Your task to perform on an android device: turn off wifi Image 0: 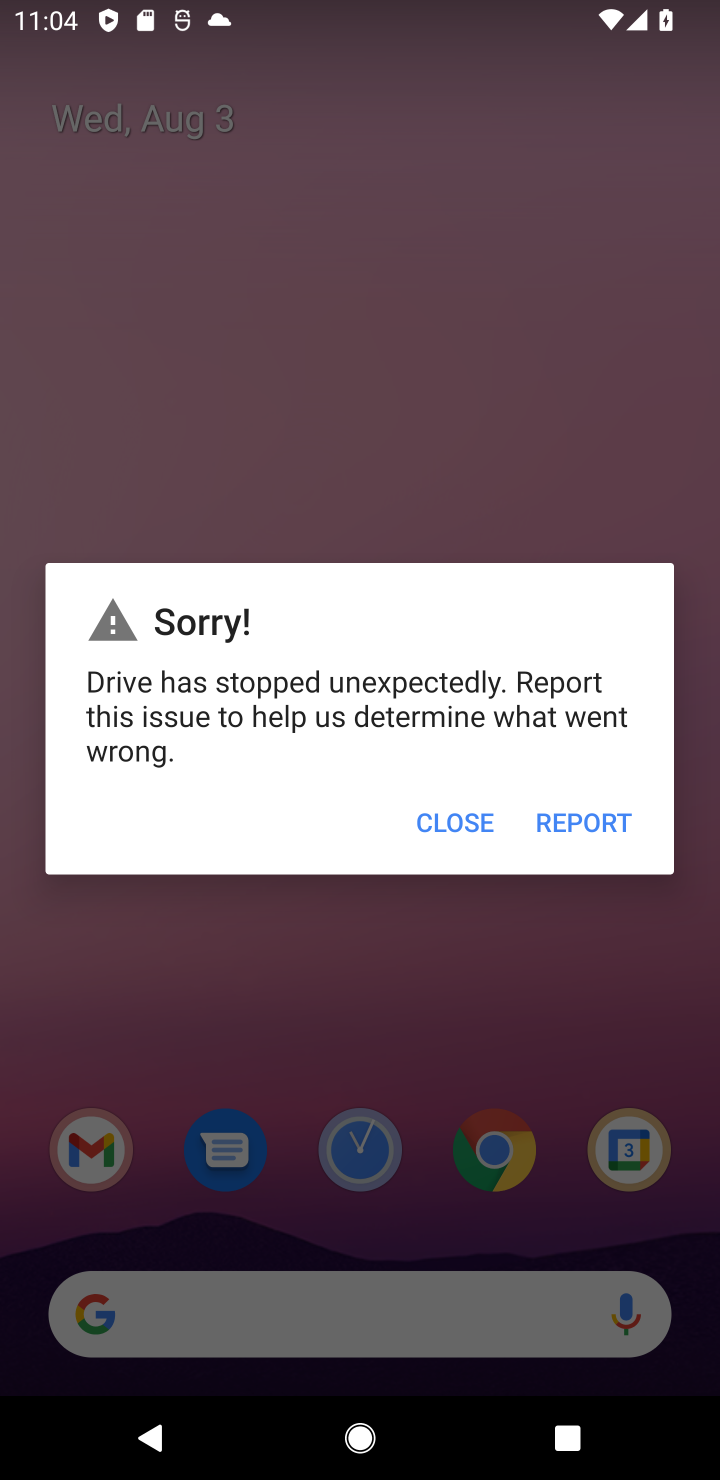
Step 0: press home button
Your task to perform on an android device: turn off wifi Image 1: 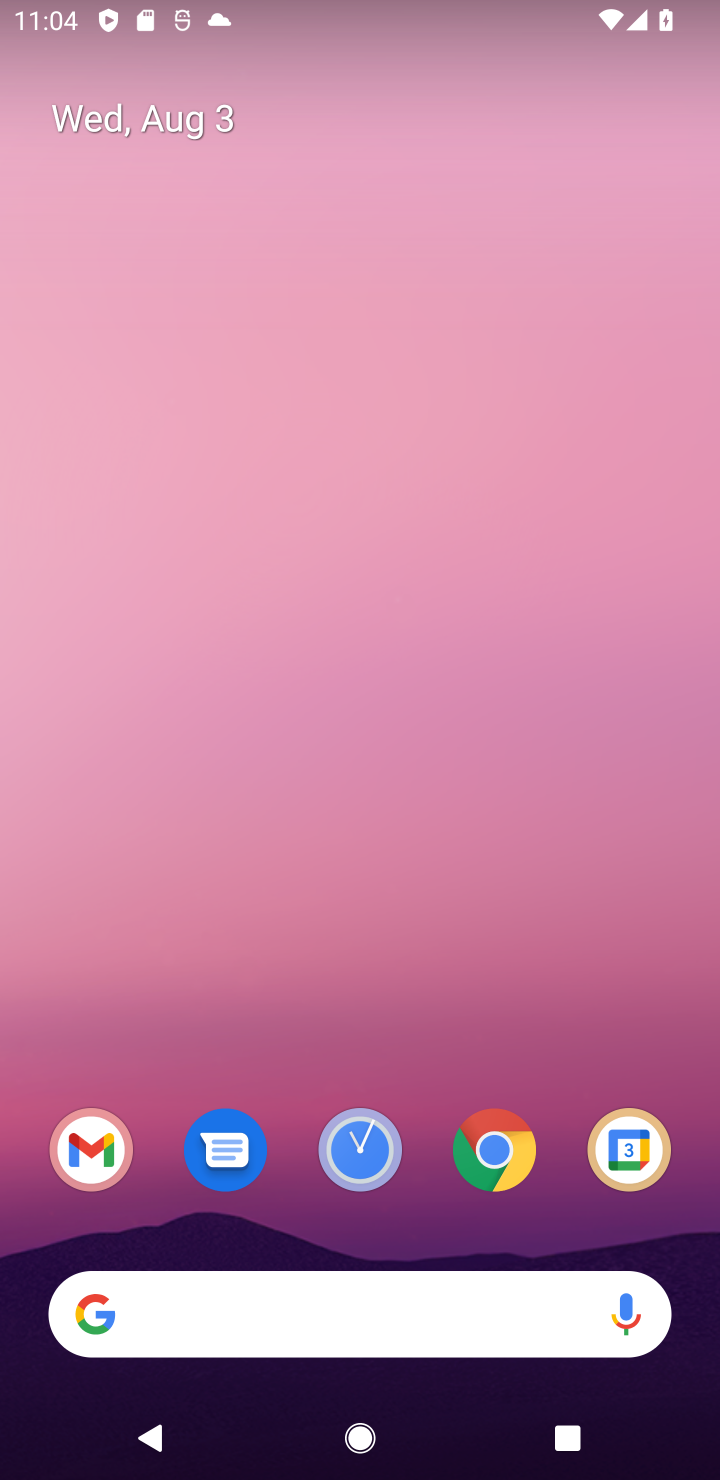
Step 1: drag from (570, 1061) to (599, 294)
Your task to perform on an android device: turn off wifi Image 2: 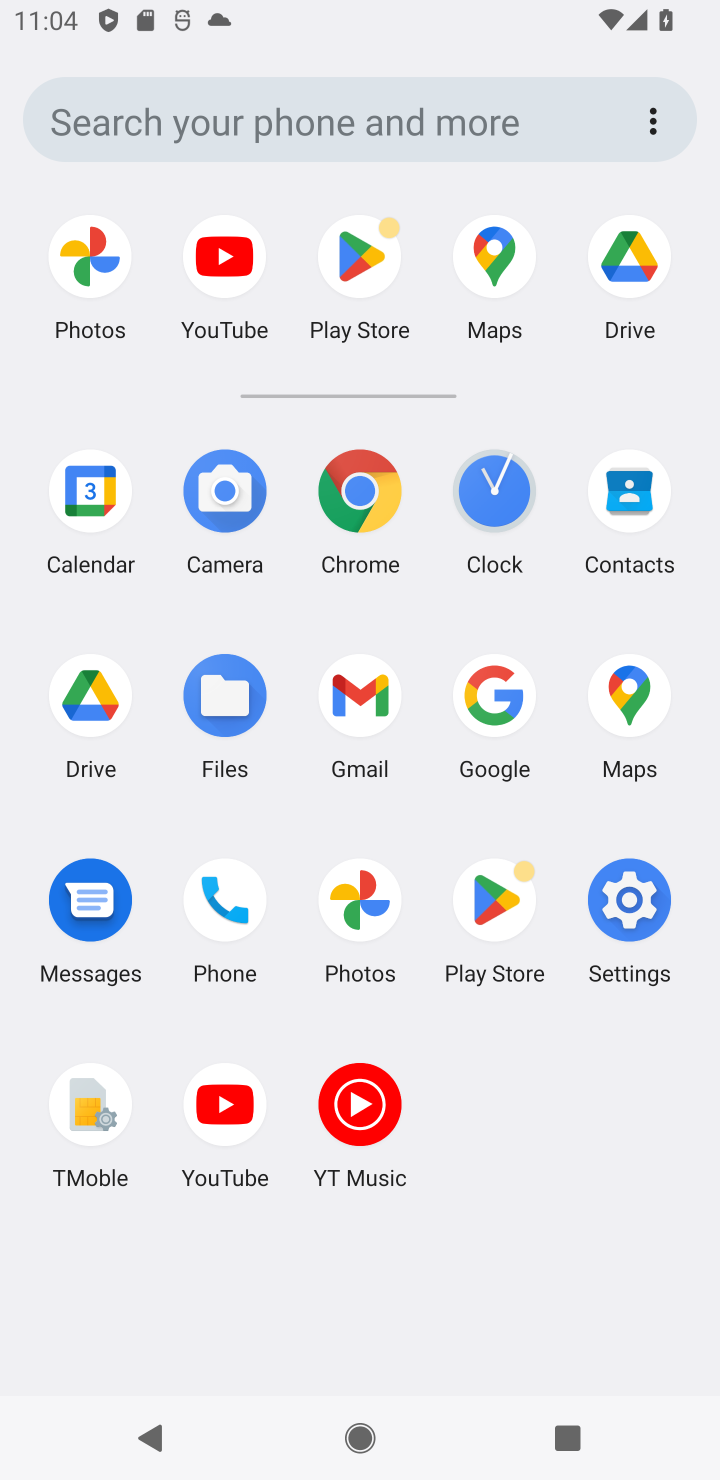
Step 2: click (632, 914)
Your task to perform on an android device: turn off wifi Image 3: 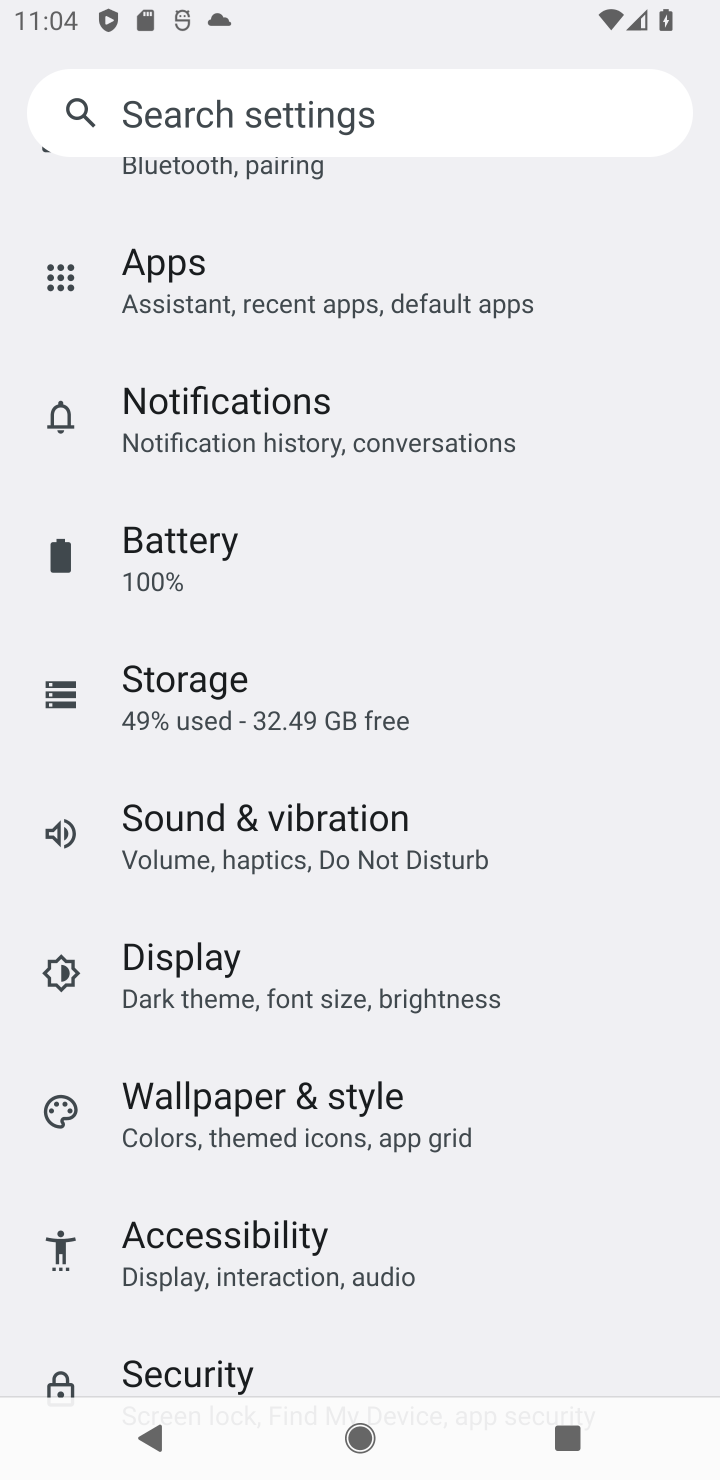
Step 3: drag from (571, 1195) to (593, 892)
Your task to perform on an android device: turn off wifi Image 4: 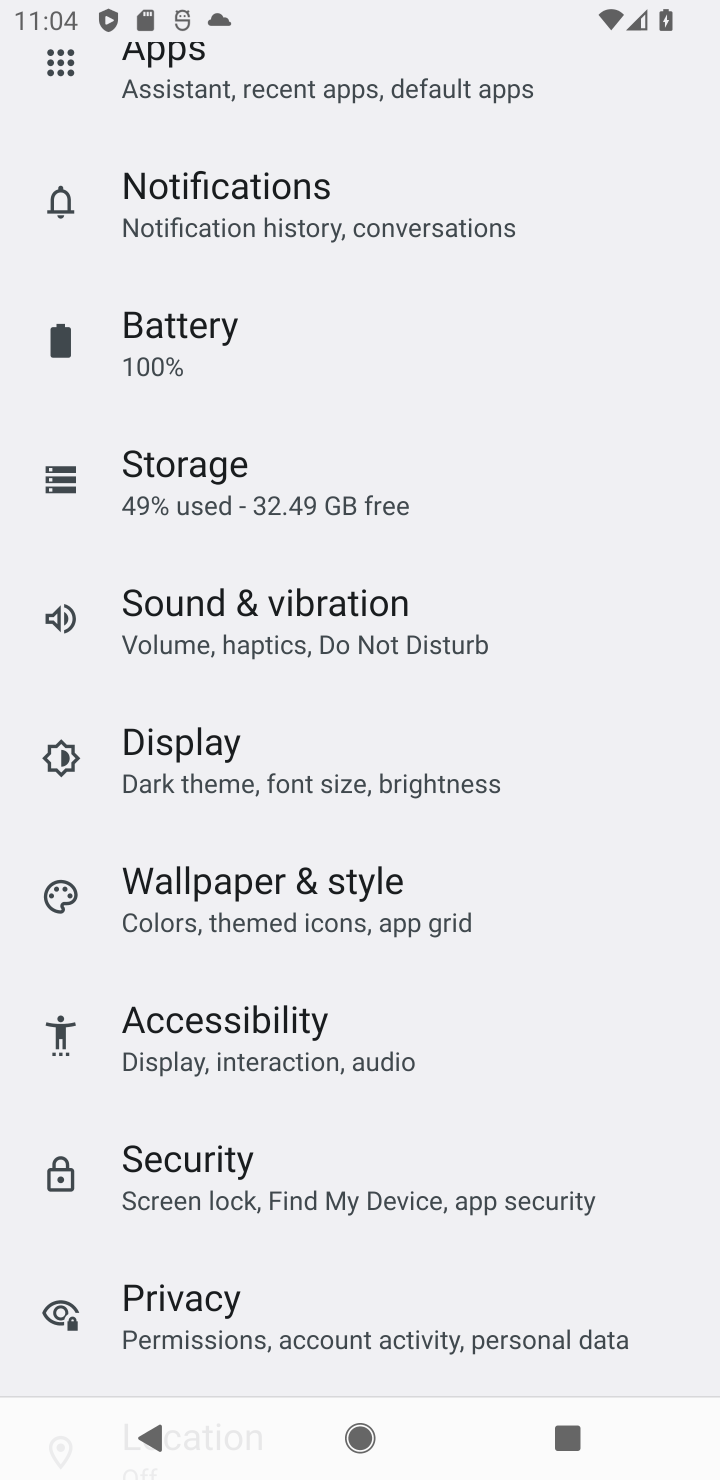
Step 4: drag from (629, 1243) to (619, 969)
Your task to perform on an android device: turn off wifi Image 5: 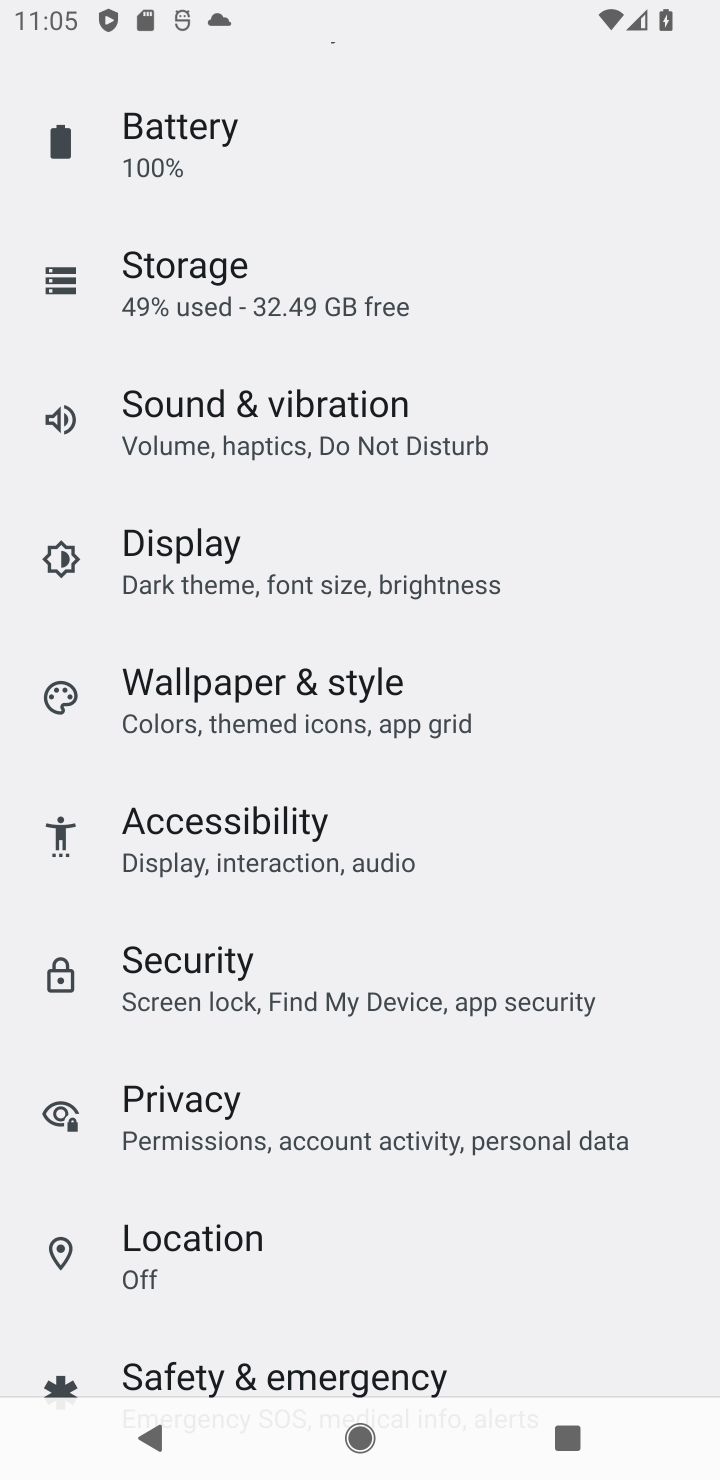
Step 5: drag from (626, 1231) to (650, 935)
Your task to perform on an android device: turn off wifi Image 6: 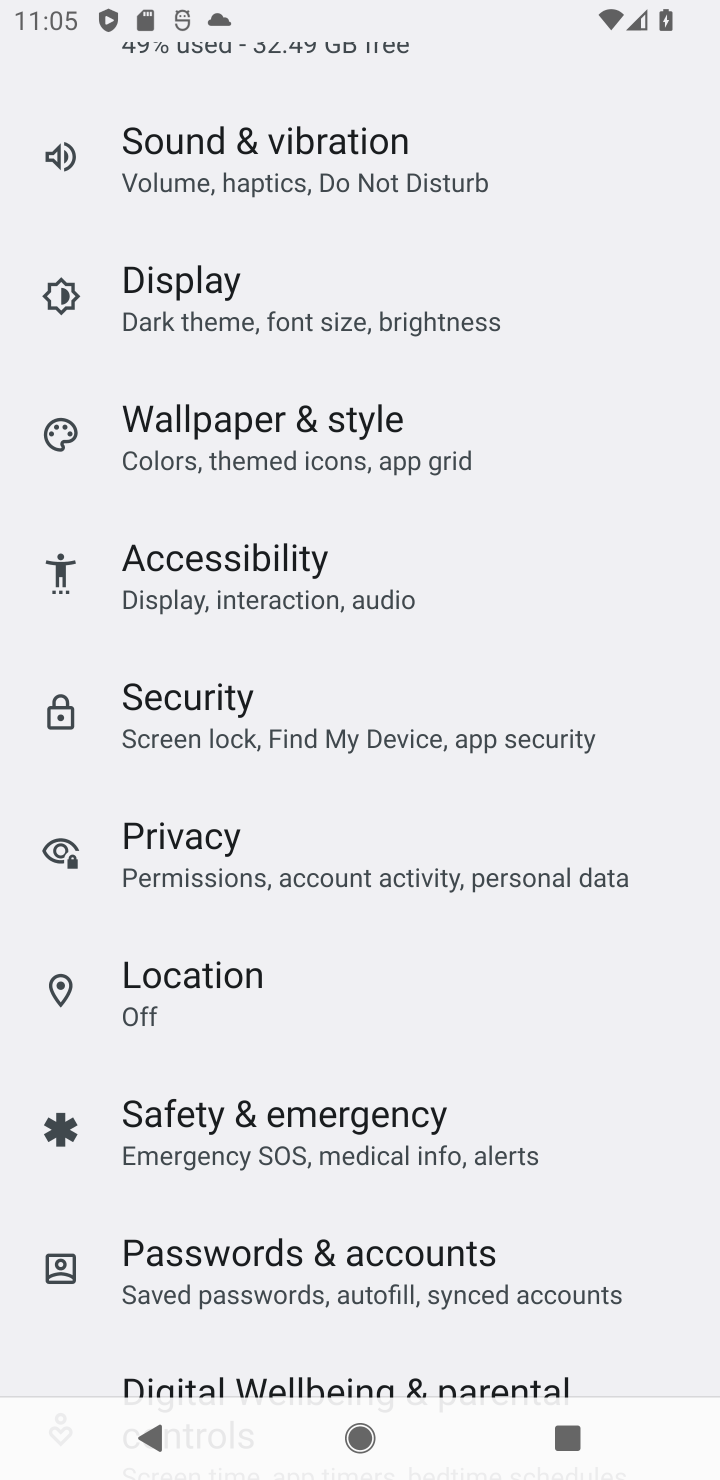
Step 6: drag from (641, 1315) to (661, 855)
Your task to perform on an android device: turn off wifi Image 7: 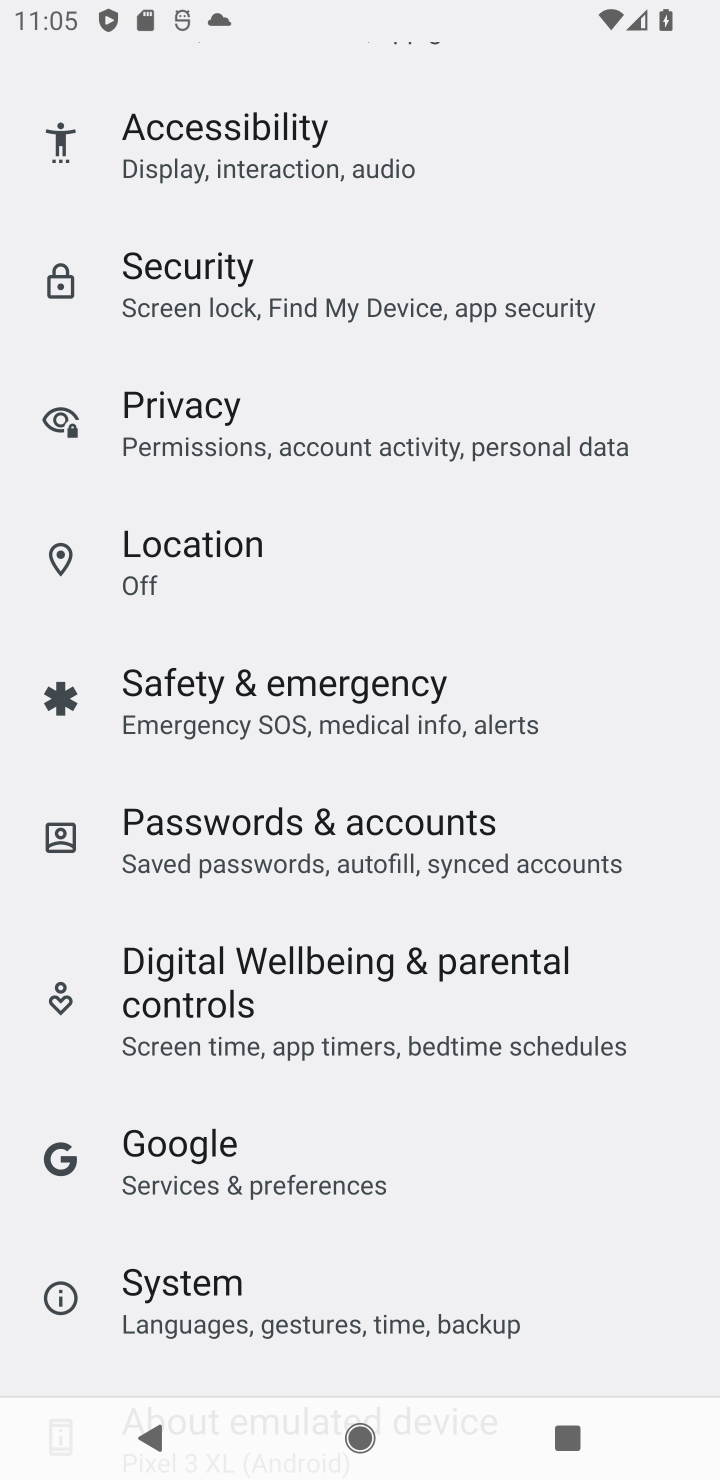
Step 7: drag from (647, 1204) to (649, 874)
Your task to perform on an android device: turn off wifi Image 8: 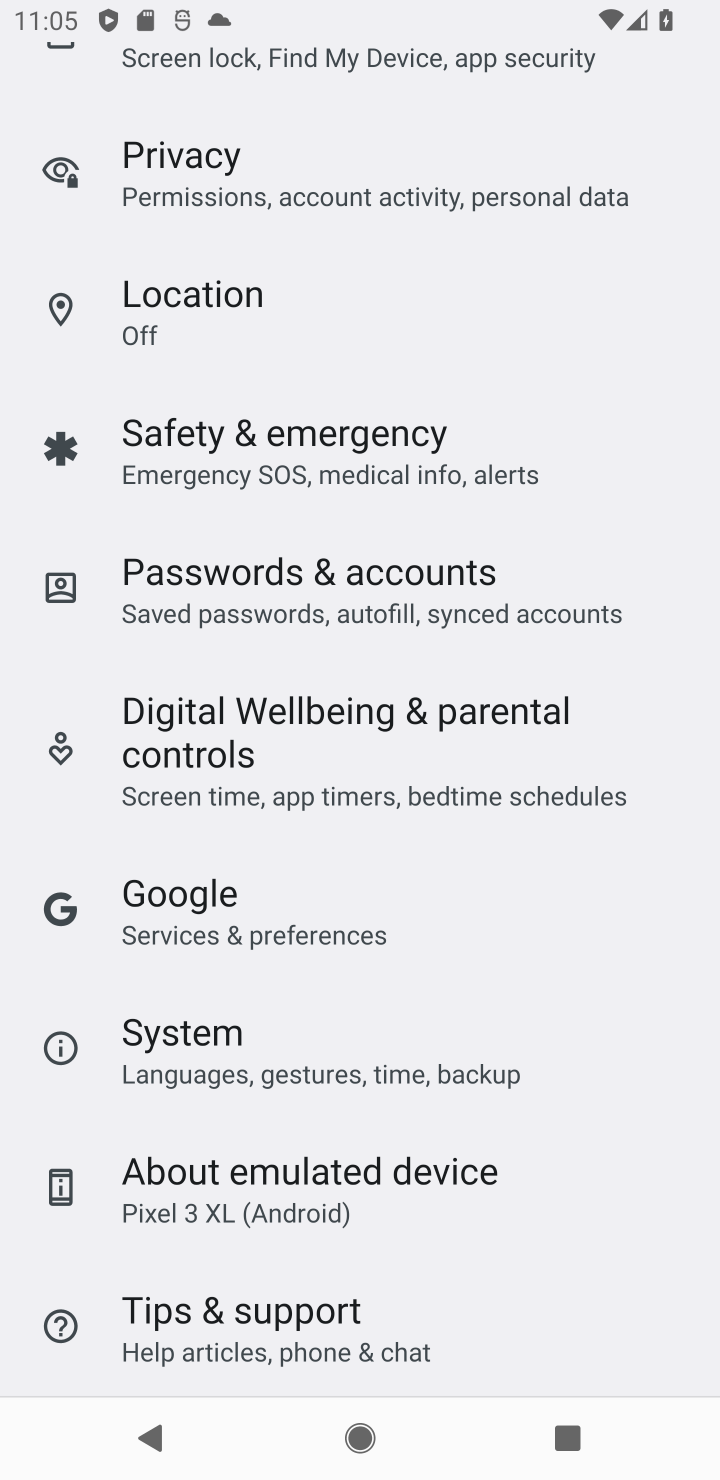
Step 8: drag from (634, 1187) to (624, 882)
Your task to perform on an android device: turn off wifi Image 9: 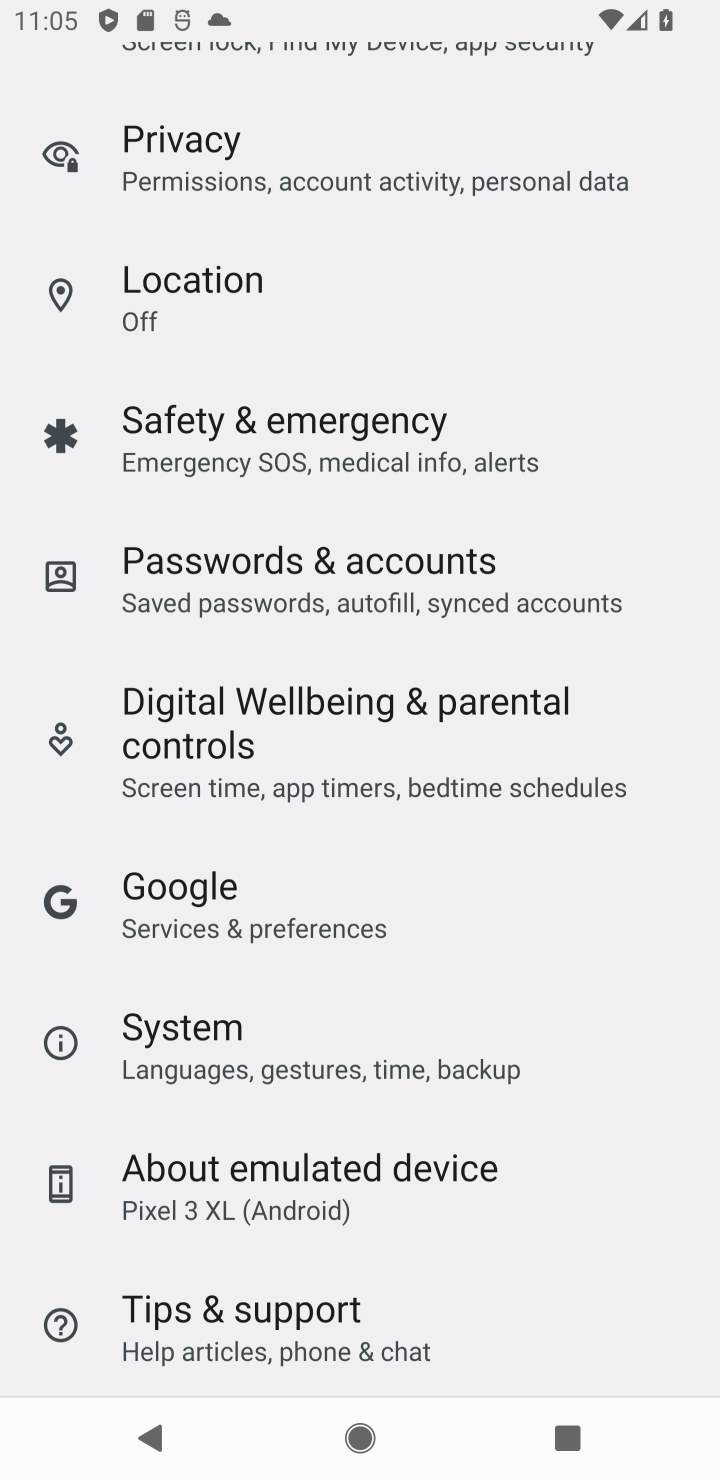
Step 9: drag from (592, 1115) to (594, 895)
Your task to perform on an android device: turn off wifi Image 10: 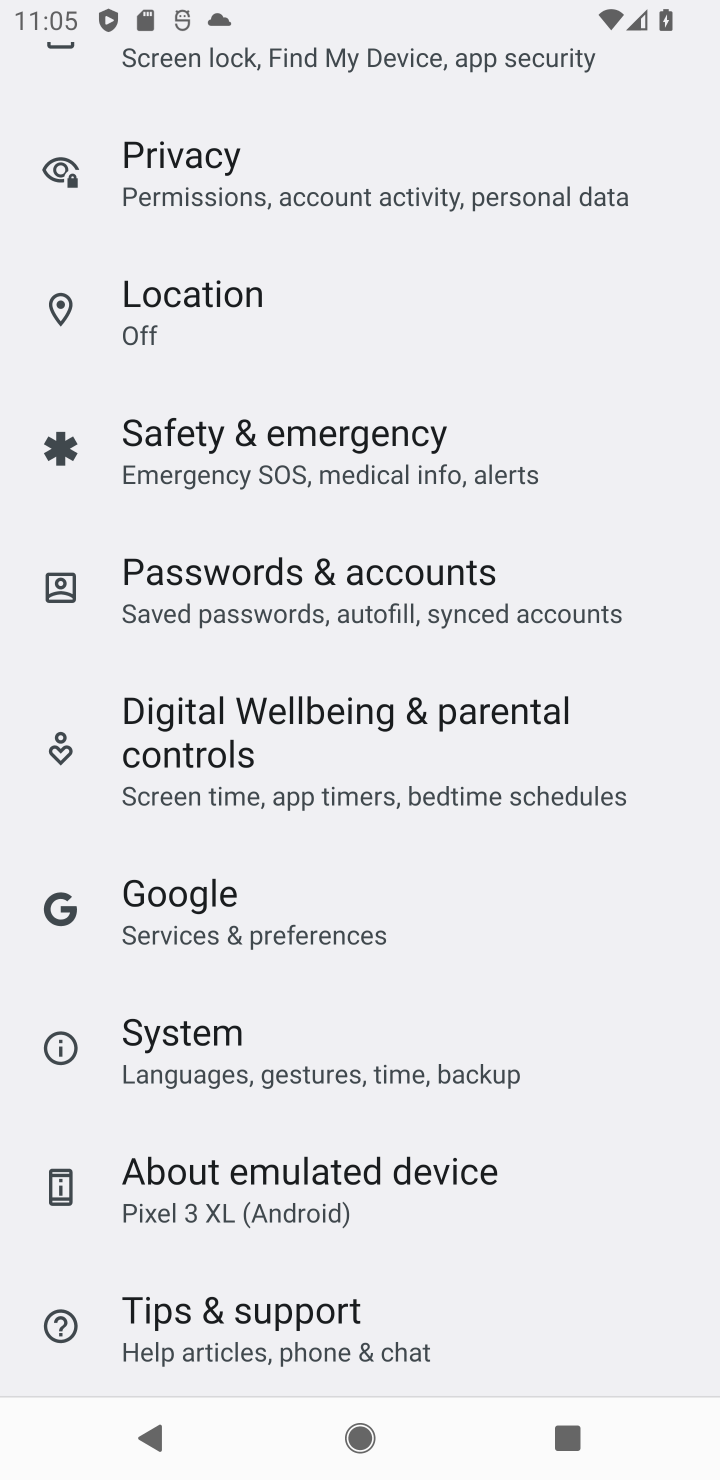
Step 10: drag from (609, 828) to (605, 1079)
Your task to perform on an android device: turn off wifi Image 11: 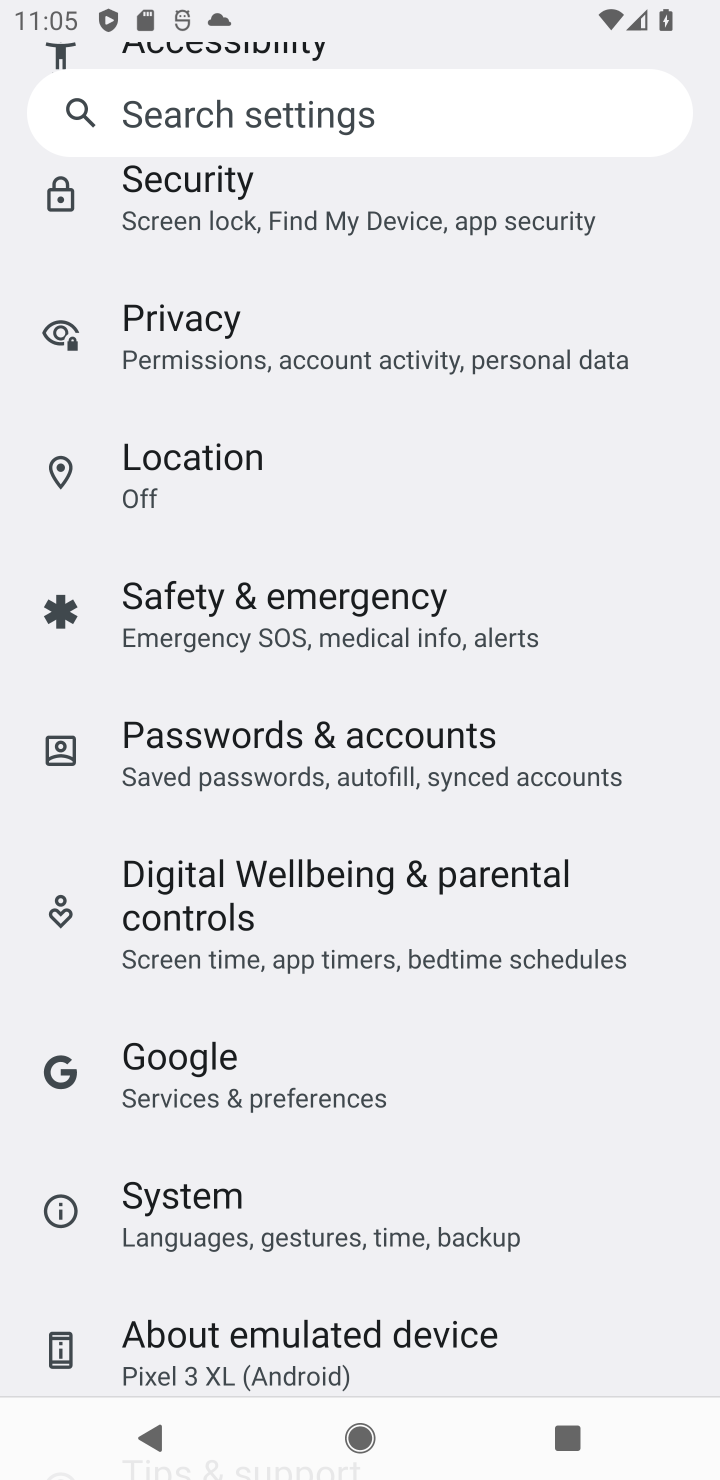
Step 11: drag from (659, 585) to (659, 893)
Your task to perform on an android device: turn off wifi Image 12: 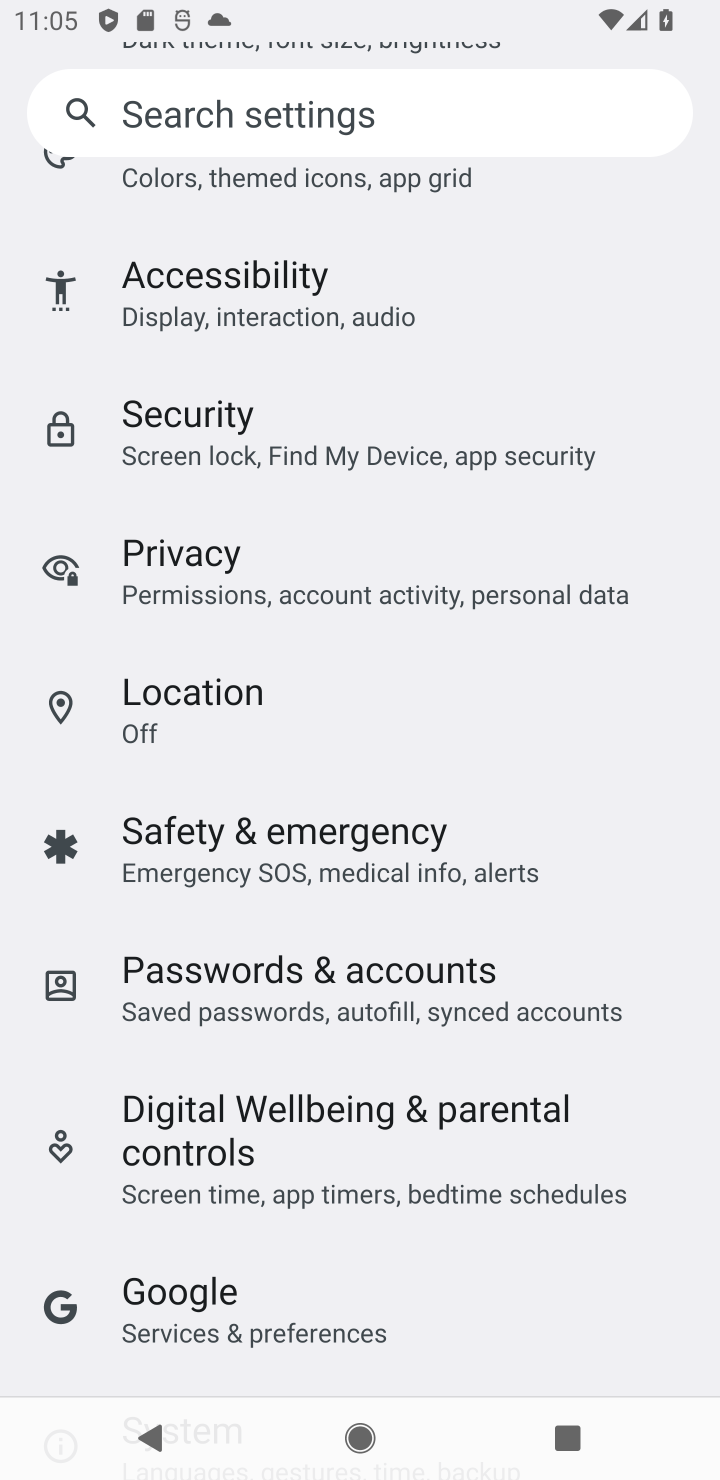
Step 12: drag from (659, 619) to (651, 960)
Your task to perform on an android device: turn off wifi Image 13: 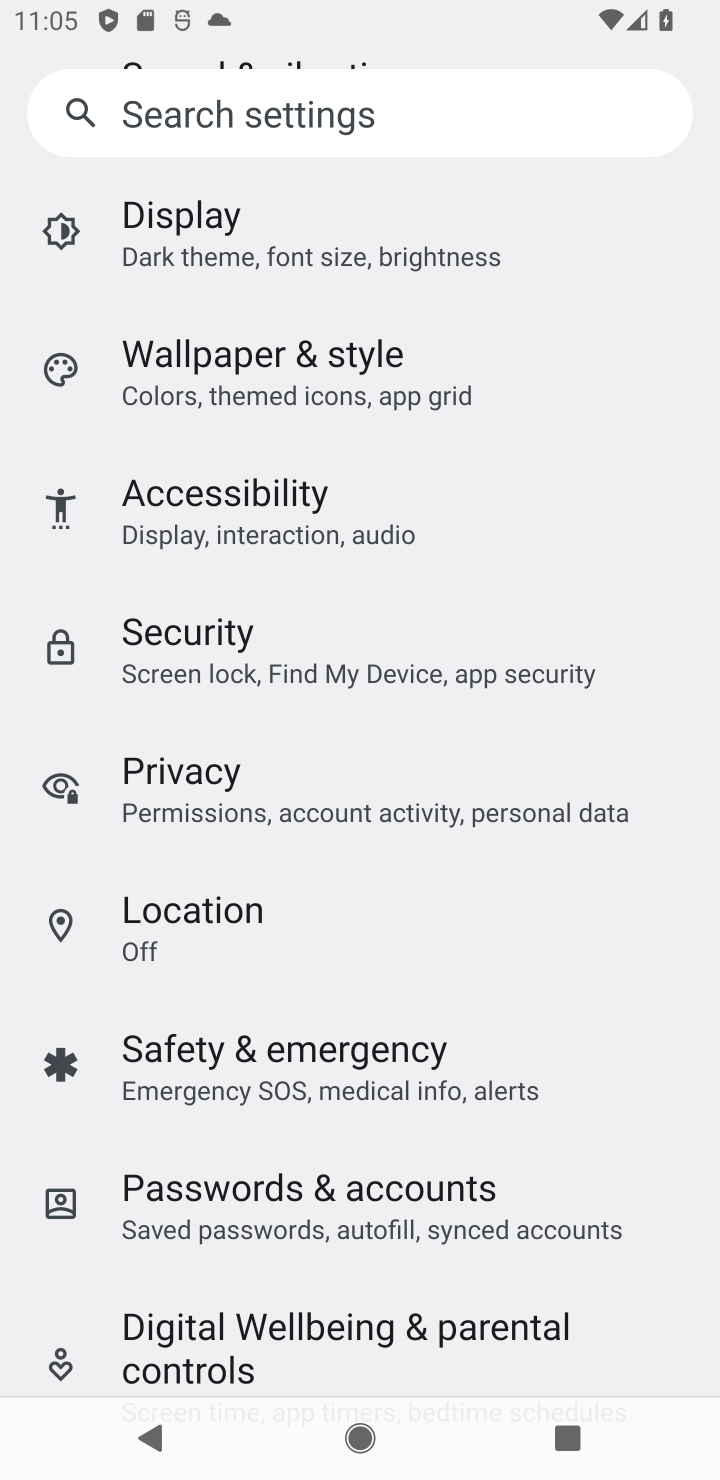
Step 13: drag from (676, 505) to (658, 838)
Your task to perform on an android device: turn off wifi Image 14: 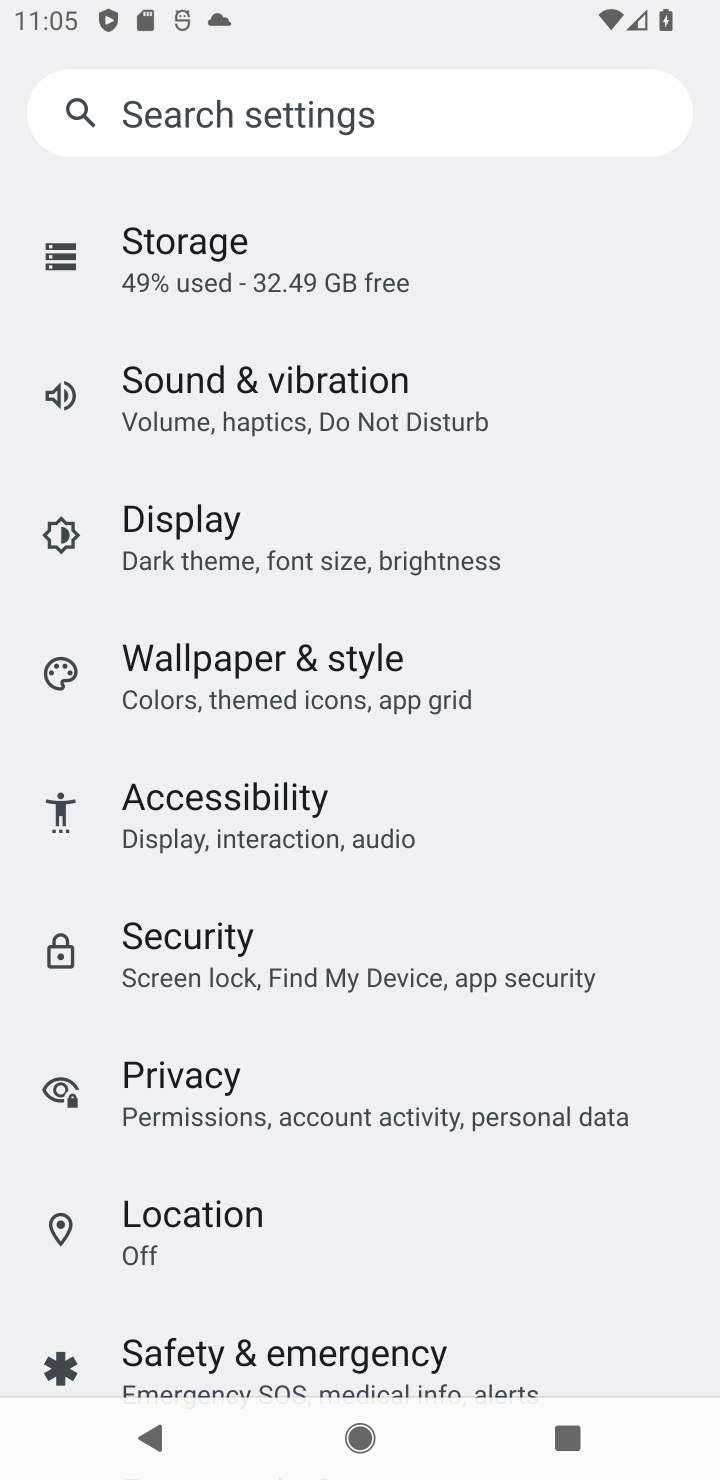
Step 14: drag from (620, 458) to (632, 762)
Your task to perform on an android device: turn off wifi Image 15: 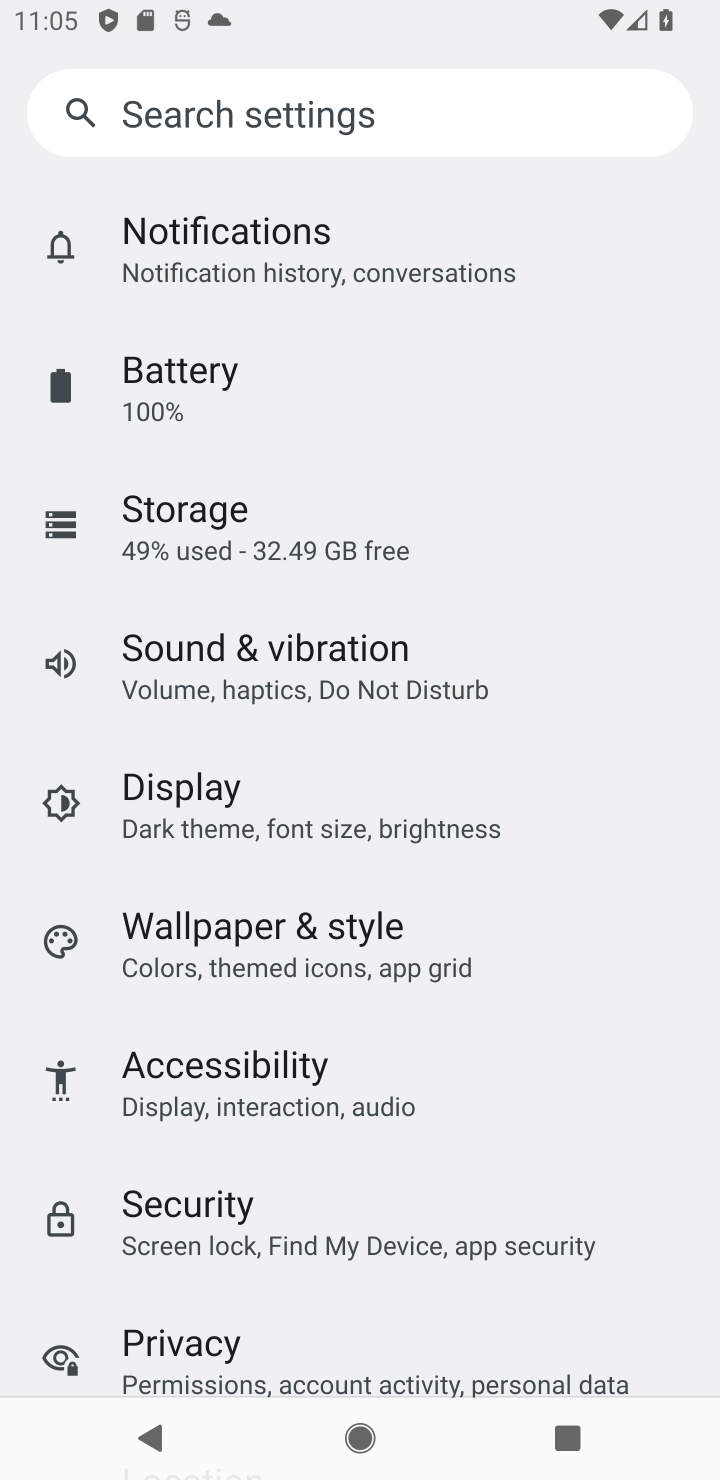
Step 15: drag from (623, 445) to (636, 797)
Your task to perform on an android device: turn off wifi Image 16: 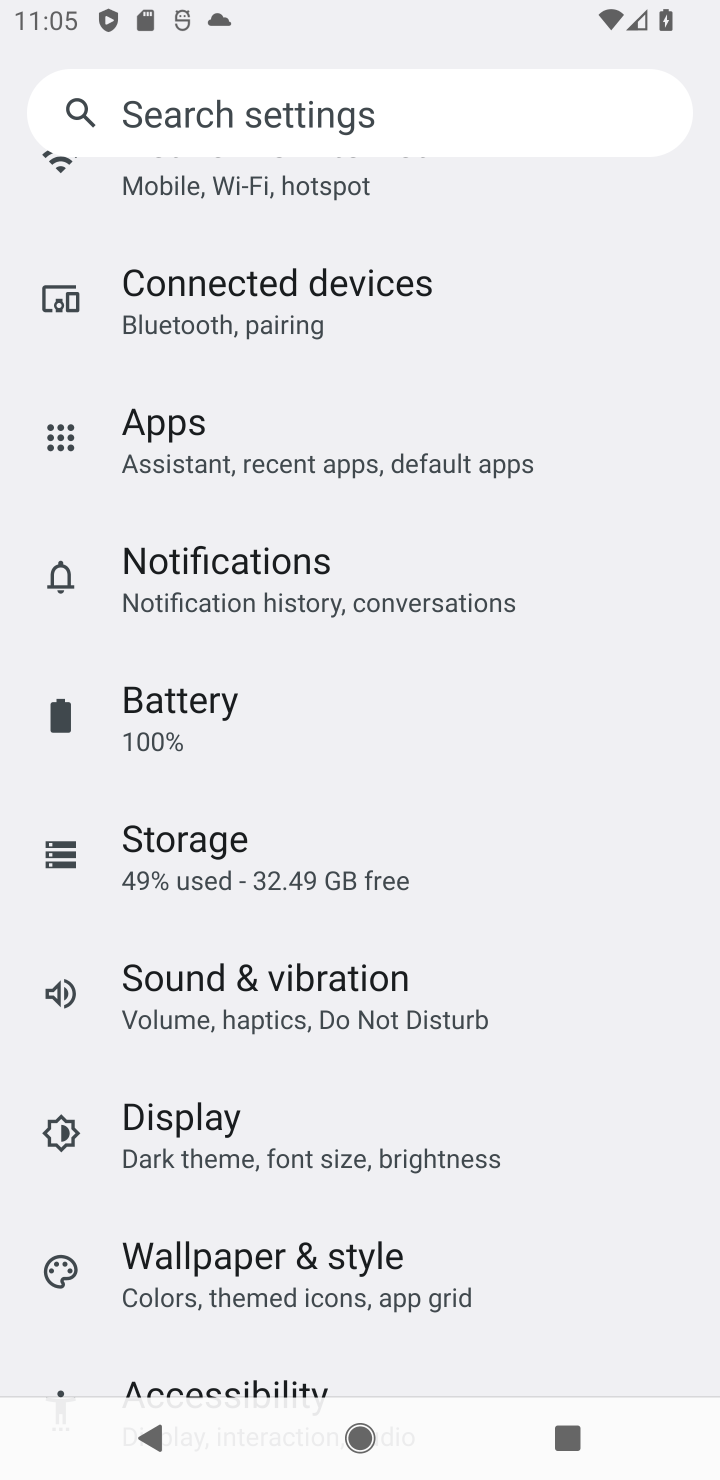
Step 16: drag from (590, 321) to (596, 714)
Your task to perform on an android device: turn off wifi Image 17: 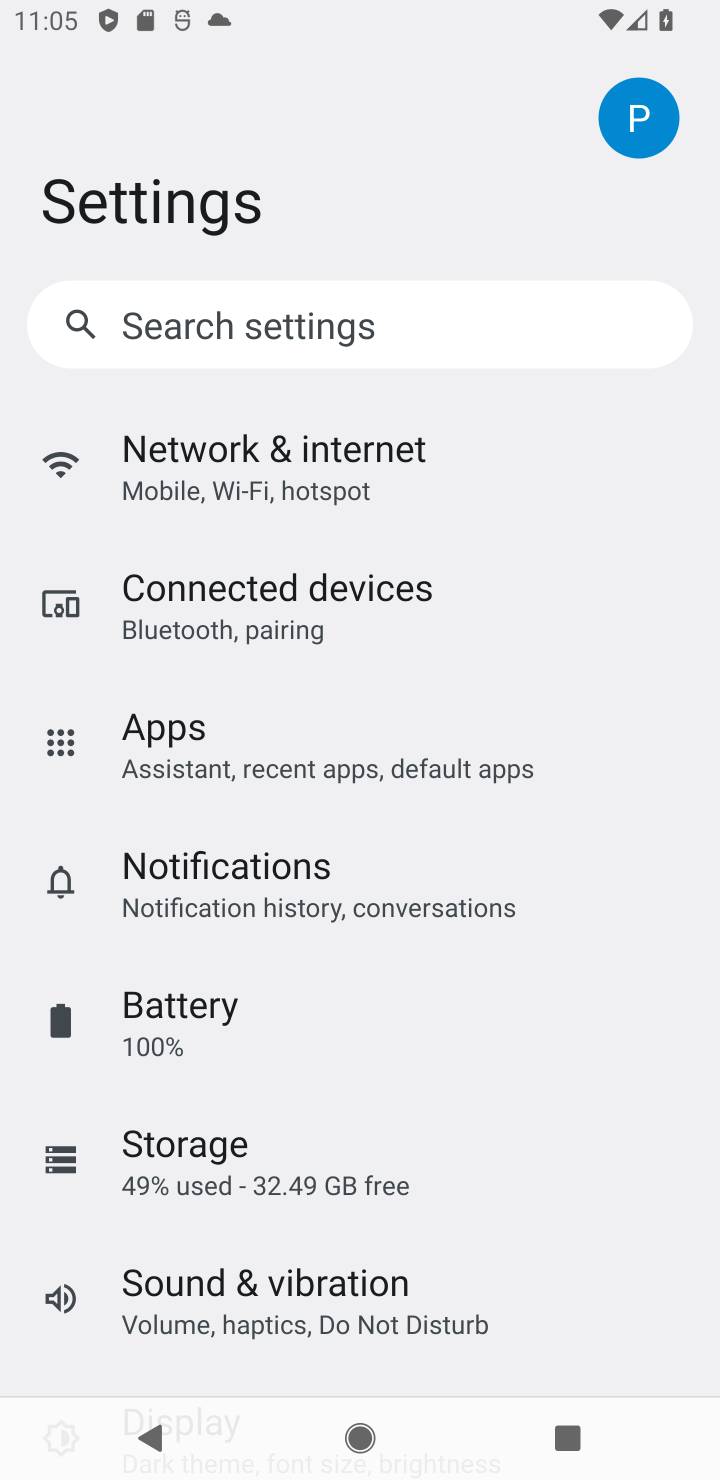
Step 17: click (458, 450)
Your task to perform on an android device: turn off wifi Image 18: 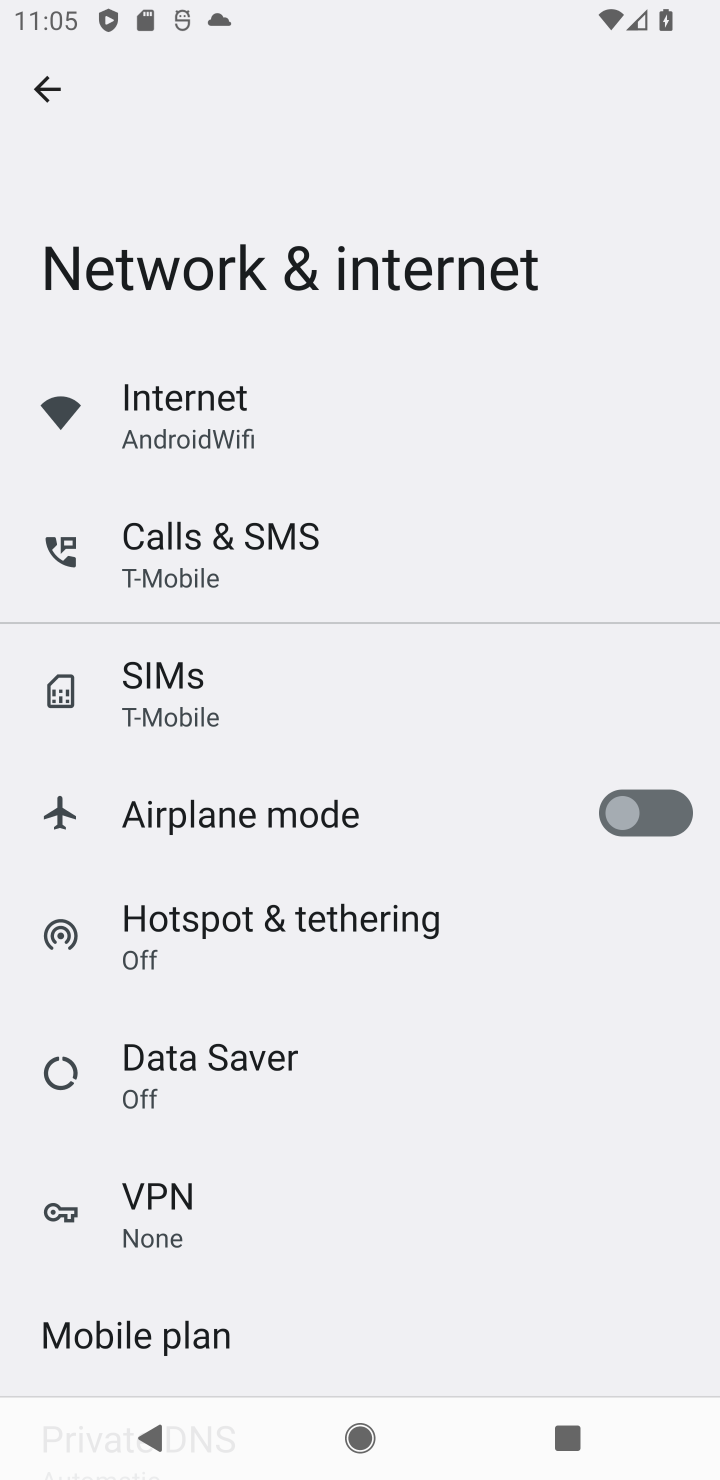
Step 18: click (267, 432)
Your task to perform on an android device: turn off wifi Image 19: 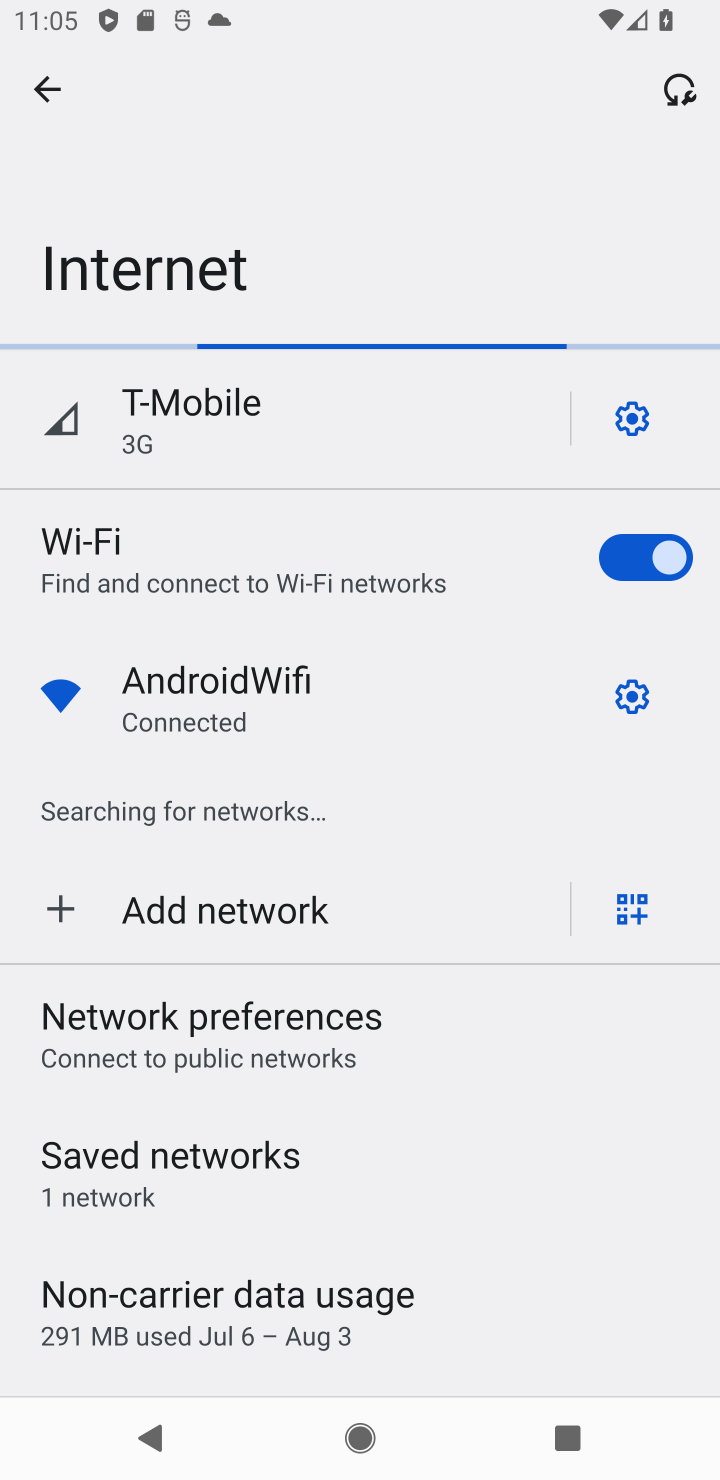
Step 19: click (625, 568)
Your task to perform on an android device: turn off wifi Image 20: 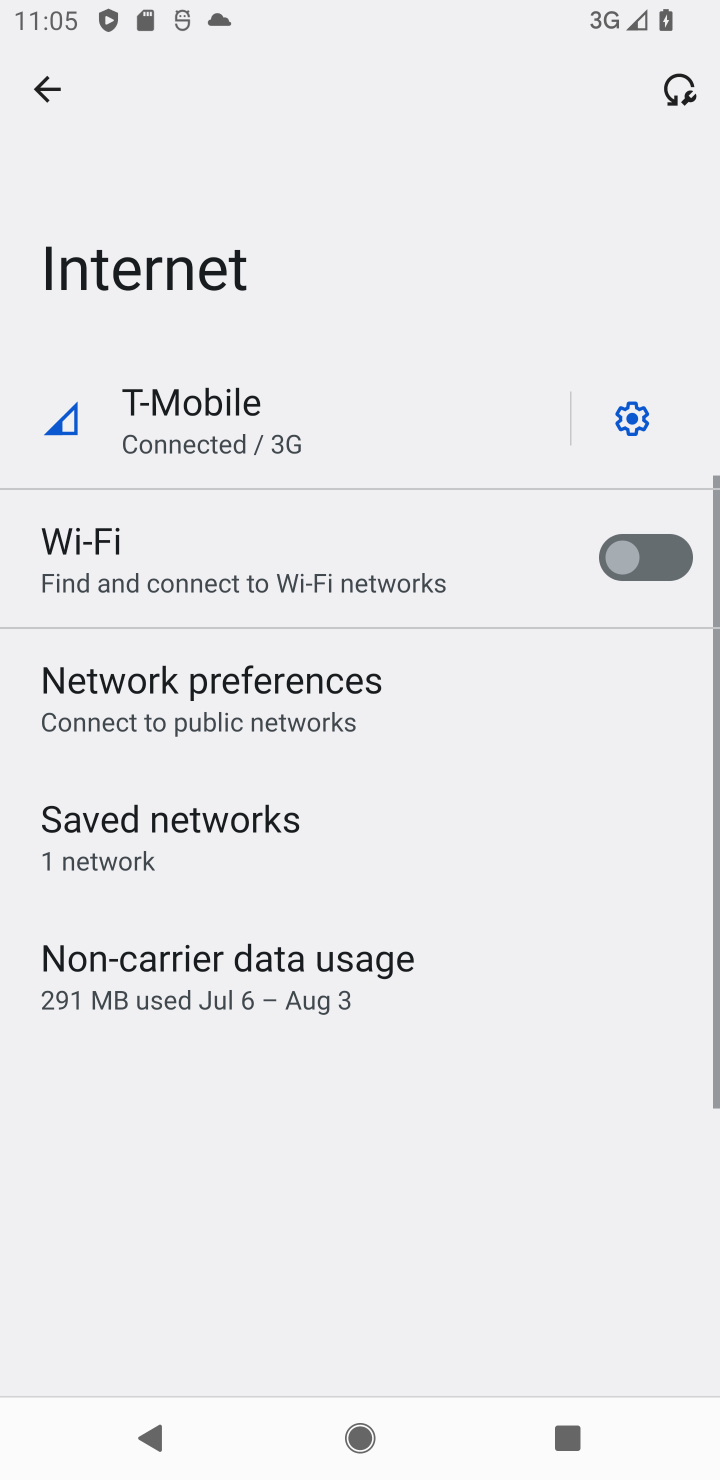
Step 20: task complete